Your task to perform on an android device: star an email in the gmail app Image 0: 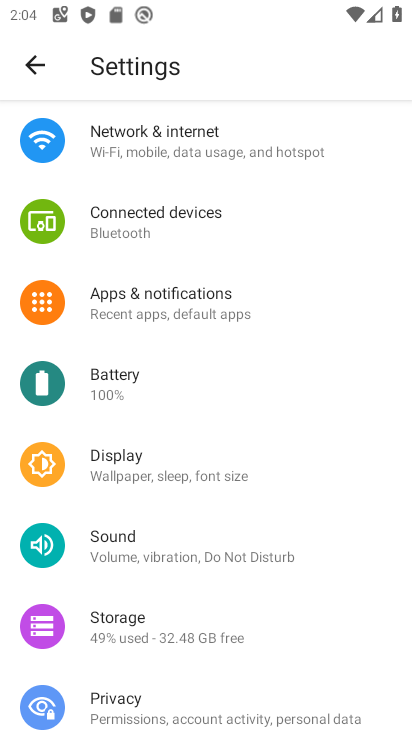
Step 0: press home button
Your task to perform on an android device: star an email in the gmail app Image 1: 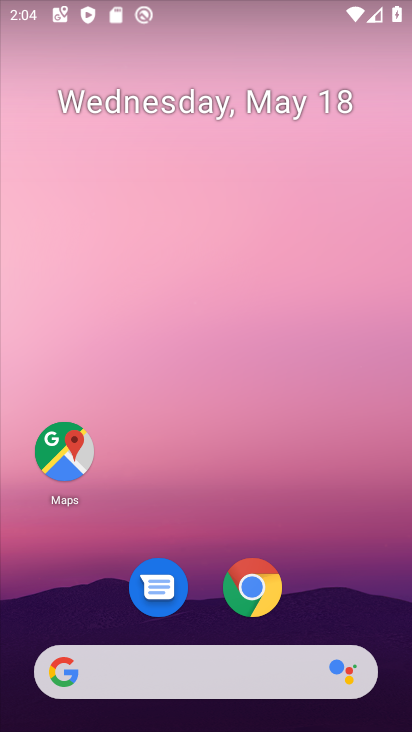
Step 1: drag from (368, 651) to (341, 7)
Your task to perform on an android device: star an email in the gmail app Image 2: 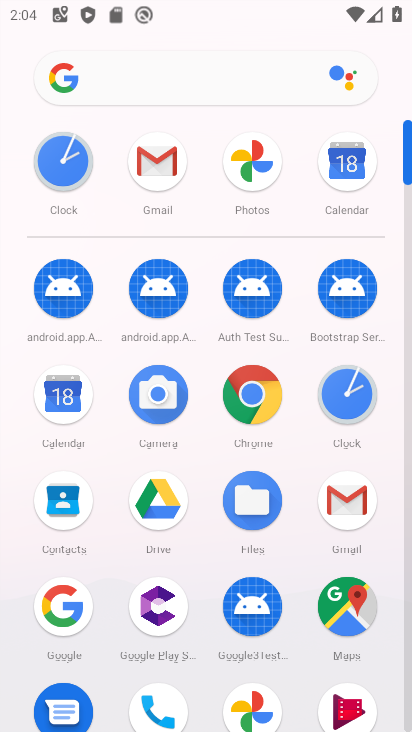
Step 2: click (144, 168)
Your task to perform on an android device: star an email in the gmail app Image 3: 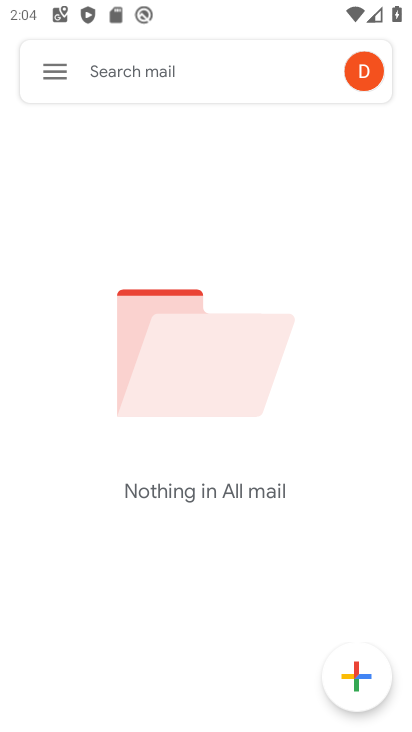
Step 3: task complete